Your task to perform on an android device: turn on notifications settings in the gmail app Image 0: 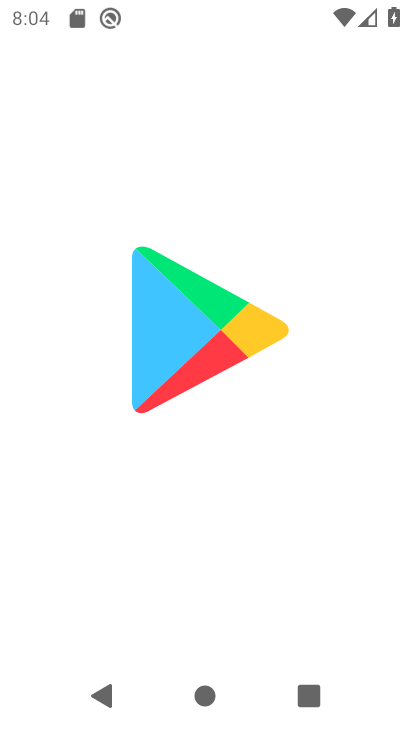
Step 0: press home button
Your task to perform on an android device: turn on notifications settings in the gmail app Image 1: 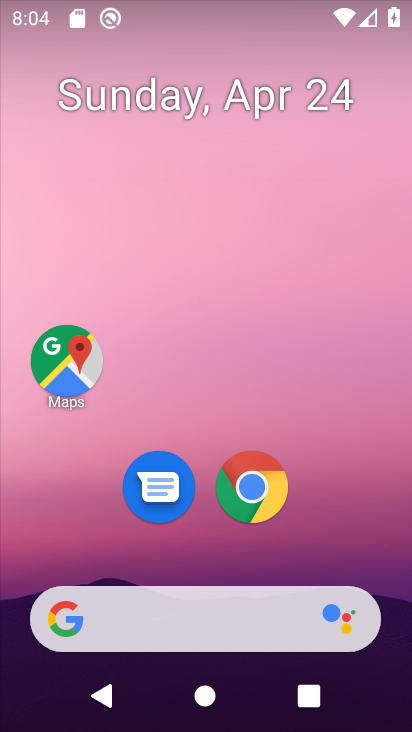
Step 1: drag from (212, 570) to (376, 610)
Your task to perform on an android device: turn on notifications settings in the gmail app Image 2: 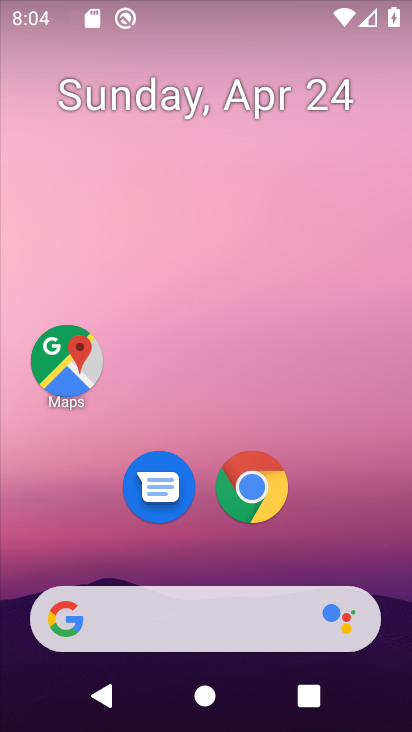
Step 2: drag from (190, 594) to (195, 1)
Your task to perform on an android device: turn on notifications settings in the gmail app Image 3: 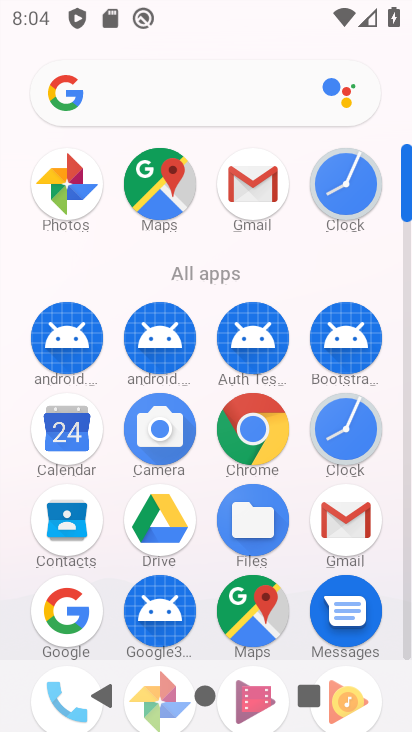
Step 3: drag from (110, 567) to (53, 11)
Your task to perform on an android device: turn on notifications settings in the gmail app Image 4: 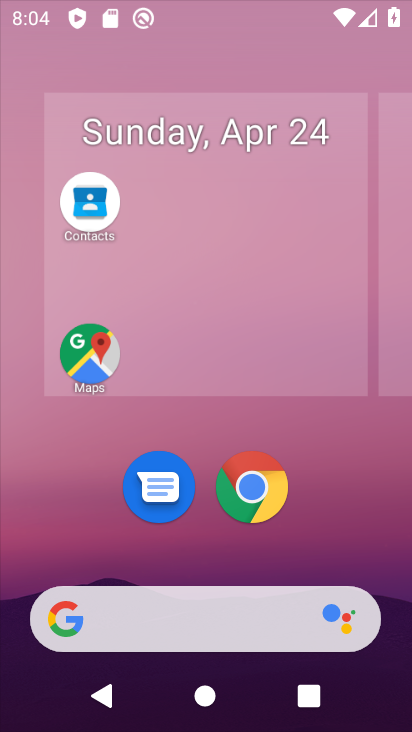
Step 4: drag from (238, 582) to (169, 4)
Your task to perform on an android device: turn on notifications settings in the gmail app Image 5: 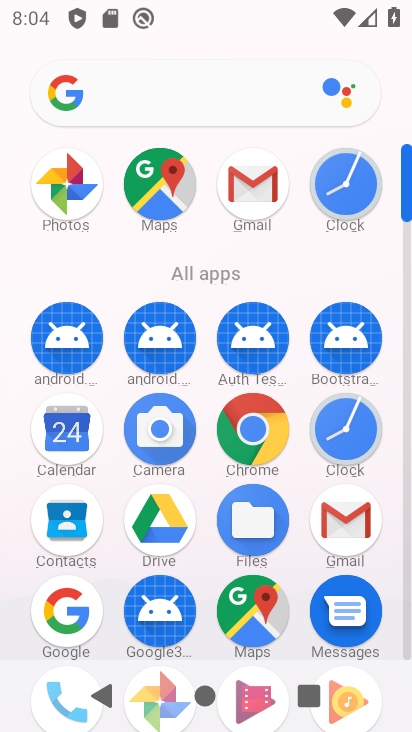
Step 5: drag from (209, 656) to (181, 345)
Your task to perform on an android device: turn on notifications settings in the gmail app Image 6: 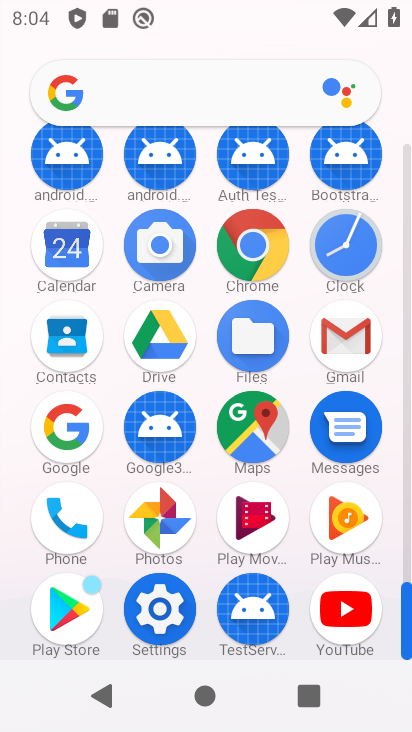
Step 6: click (340, 328)
Your task to perform on an android device: turn on notifications settings in the gmail app Image 7: 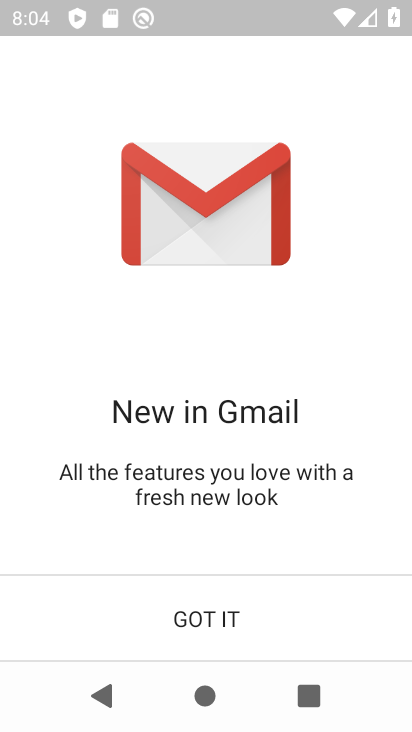
Step 7: click (230, 600)
Your task to perform on an android device: turn on notifications settings in the gmail app Image 8: 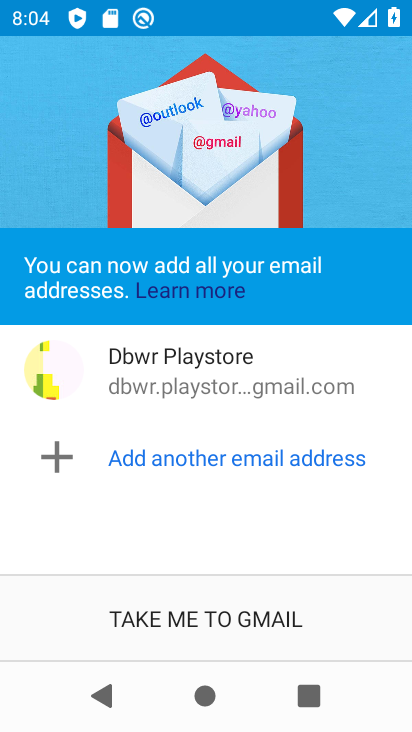
Step 8: click (230, 600)
Your task to perform on an android device: turn on notifications settings in the gmail app Image 9: 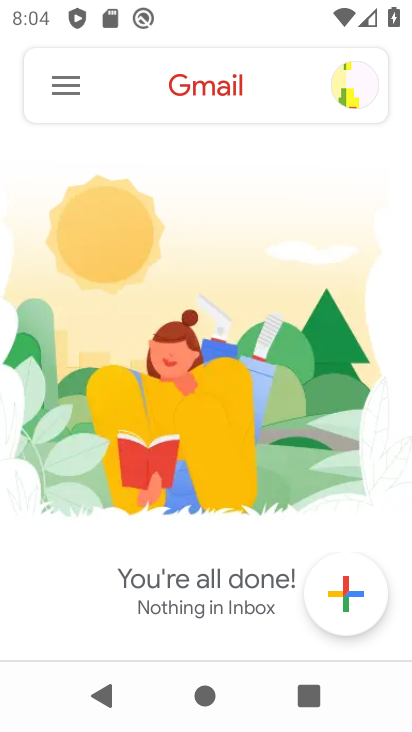
Step 9: click (41, 68)
Your task to perform on an android device: turn on notifications settings in the gmail app Image 10: 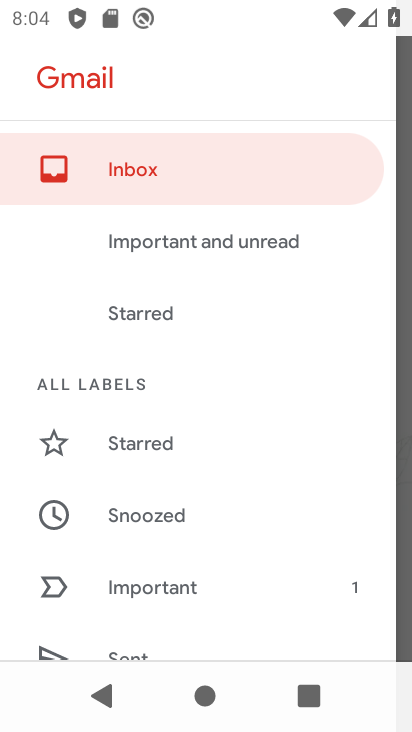
Step 10: drag from (209, 595) to (193, 188)
Your task to perform on an android device: turn on notifications settings in the gmail app Image 11: 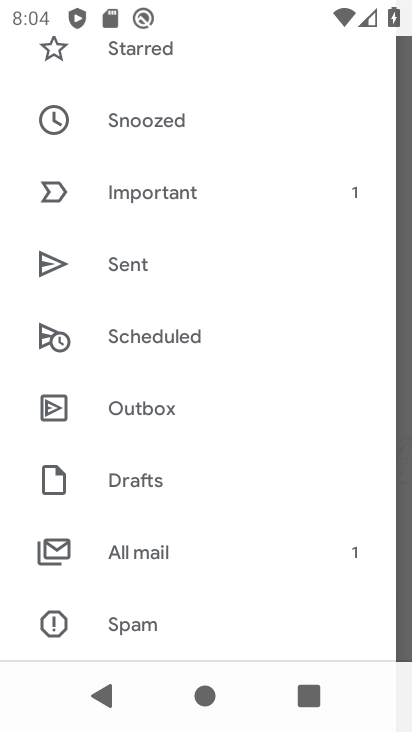
Step 11: drag from (199, 593) to (166, 159)
Your task to perform on an android device: turn on notifications settings in the gmail app Image 12: 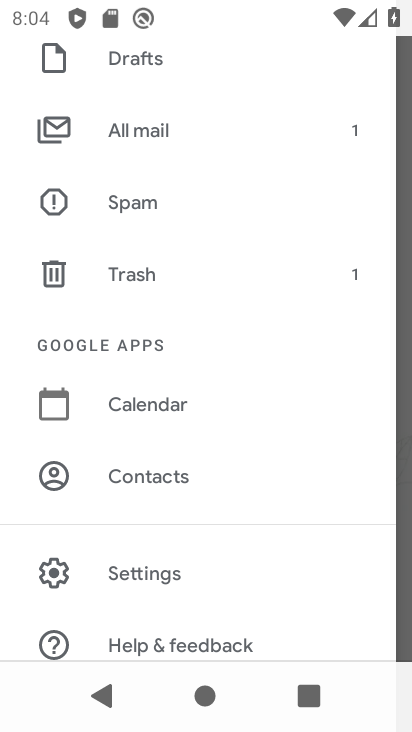
Step 12: click (141, 574)
Your task to perform on an android device: turn on notifications settings in the gmail app Image 13: 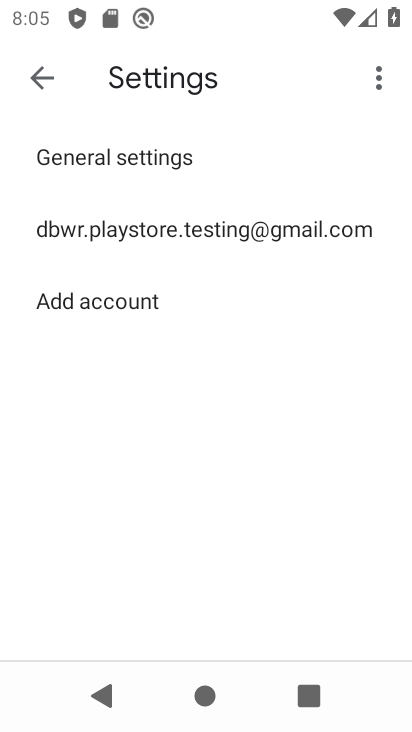
Step 13: click (105, 146)
Your task to perform on an android device: turn on notifications settings in the gmail app Image 14: 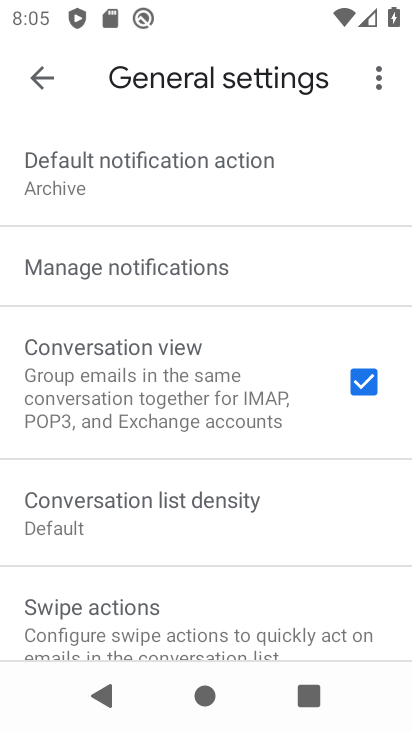
Step 14: click (151, 273)
Your task to perform on an android device: turn on notifications settings in the gmail app Image 15: 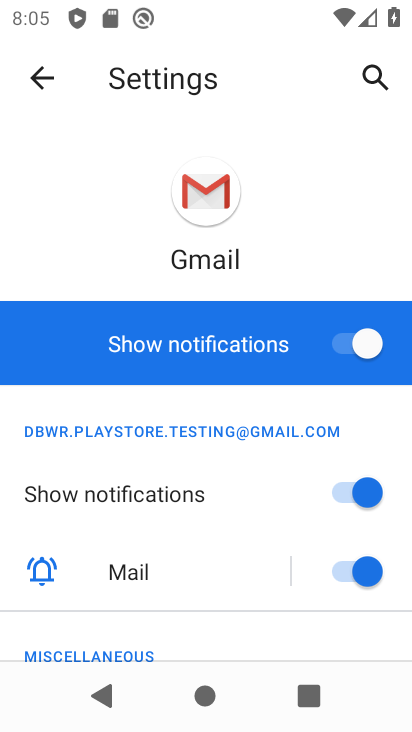
Step 15: task complete